Your task to perform on an android device: Open my contact list Image 0: 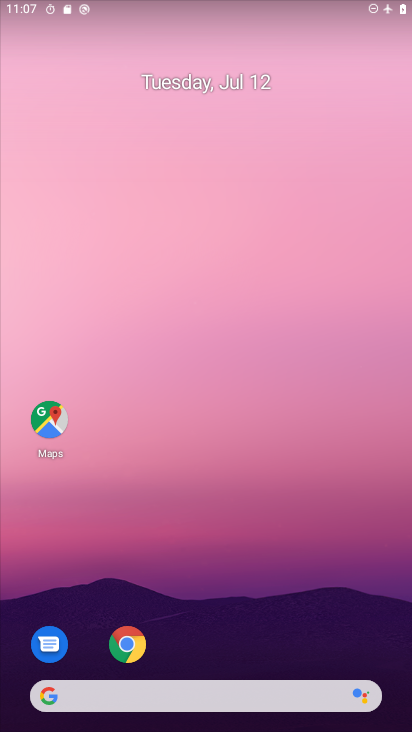
Step 0: drag from (216, 627) to (200, 213)
Your task to perform on an android device: Open my contact list Image 1: 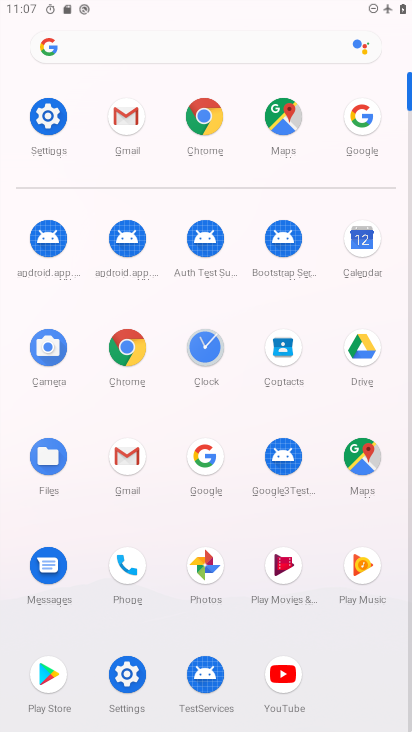
Step 1: click (282, 357)
Your task to perform on an android device: Open my contact list Image 2: 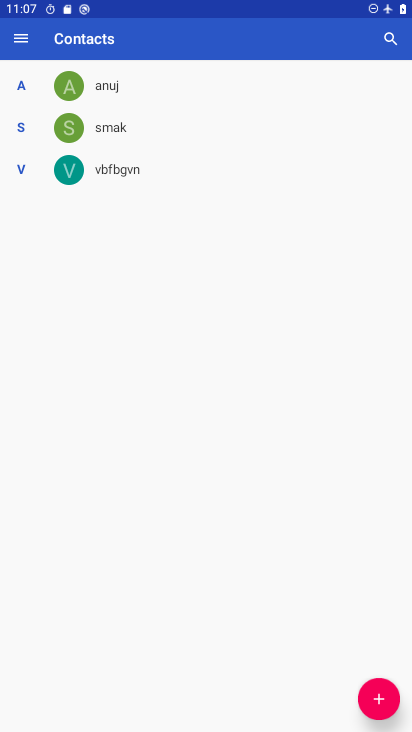
Step 2: task complete